Your task to perform on an android device: check data usage Image 0: 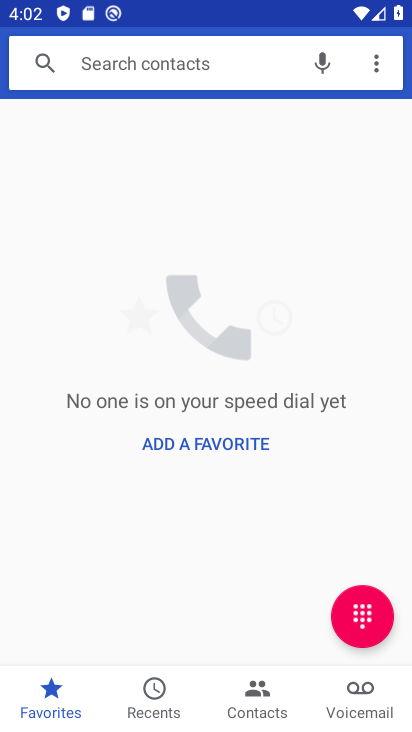
Step 0: press home button
Your task to perform on an android device: check data usage Image 1: 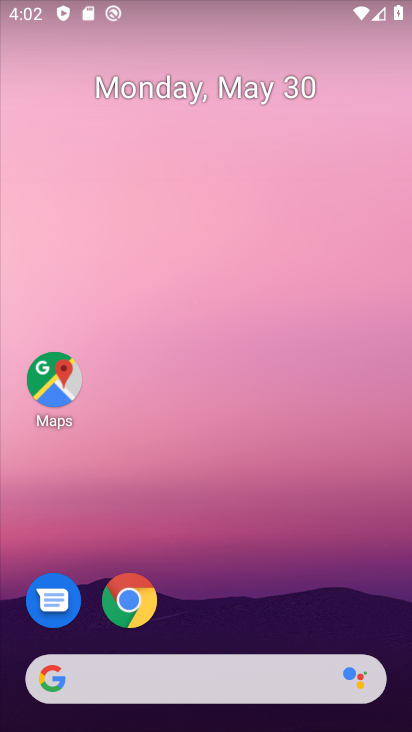
Step 1: drag from (254, 590) to (166, 158)
Your task to perform on an android device: check data usage Image 2: 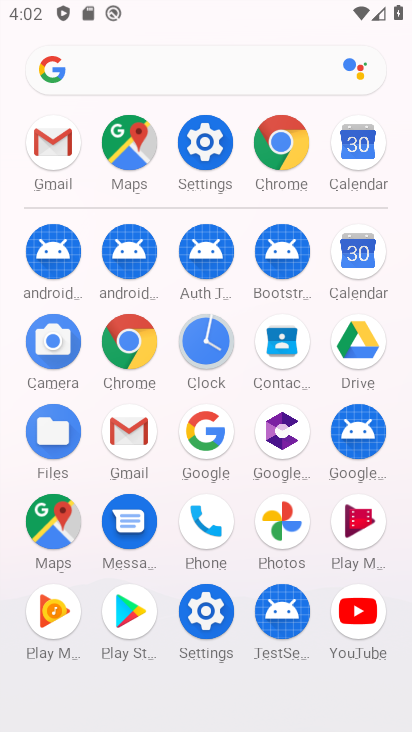
Step 2: click (230, 149)
Your task to perform on an android device: check data usage Image 3: 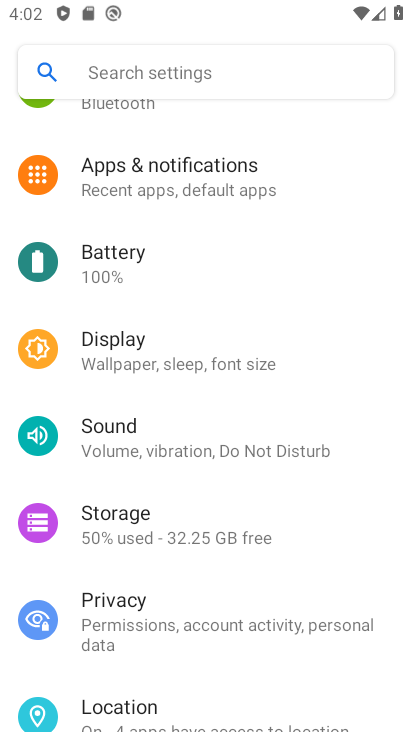
Step 3: drag from (209, 146) to (247, 630)
Your task to perform on an android device: check data usage Image 4: 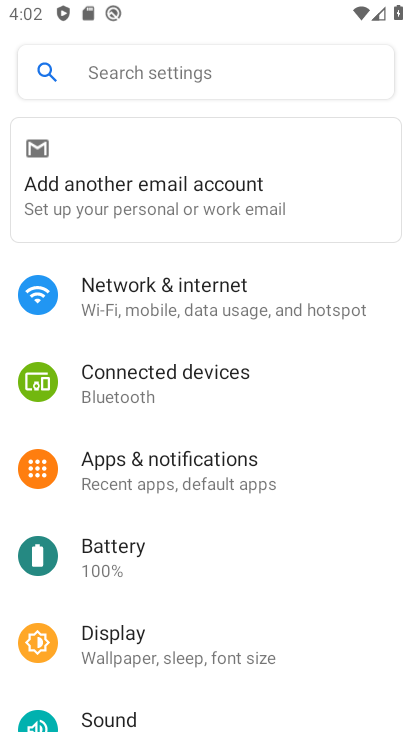
Step 4: click (203, 321)
Your task to perform on an android device: check data usage Image 5: 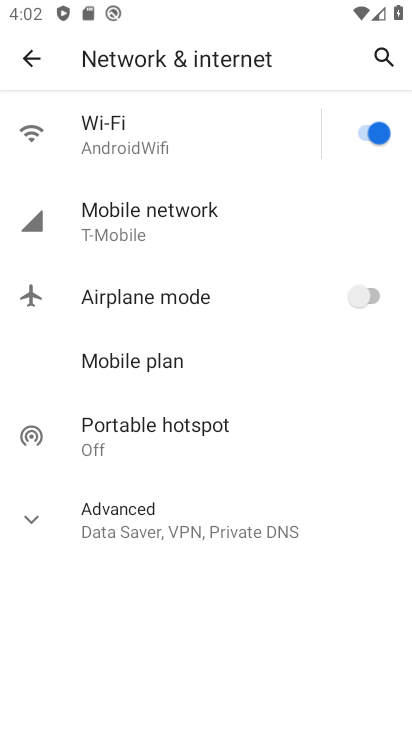
Step 5: click (135, 137)
Your task to perform on an android device: check data usage Image 6: 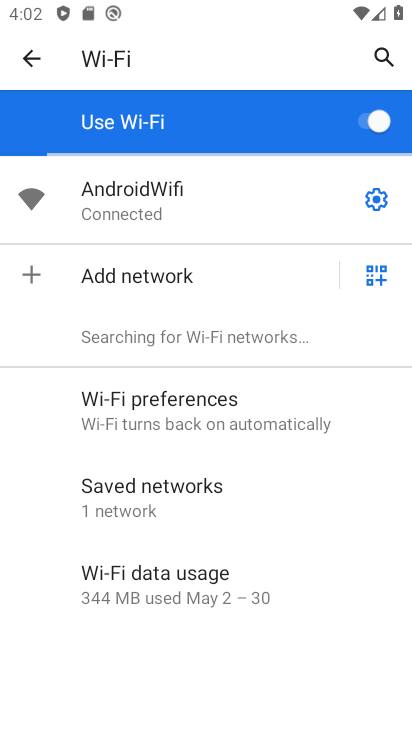
Step 6: click (151, 573)
Your task to perform on an android device: check data usage Image 7: 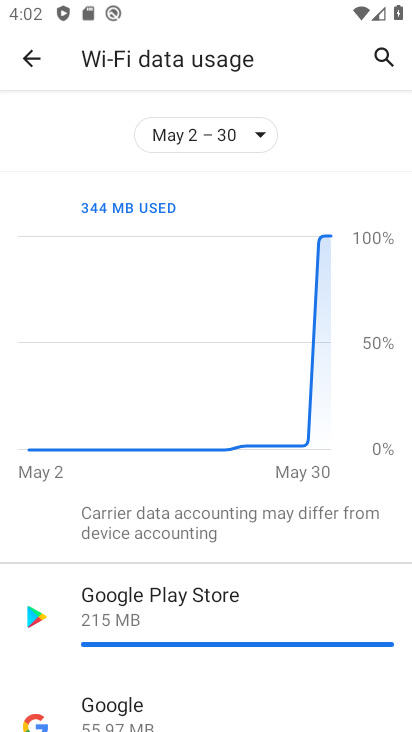
Step 7: task complete